Your task to perform on an android device: Open Google Chrome and open the bookmarks view Image 0: 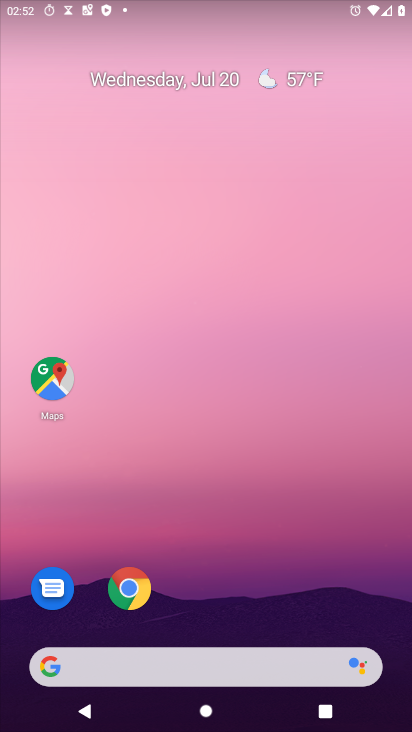
Step 0: drag from (266, 687) to (349, 213)
Your task to perform on an android device: Open Google Chrome and open the bookmarks view Image 1: 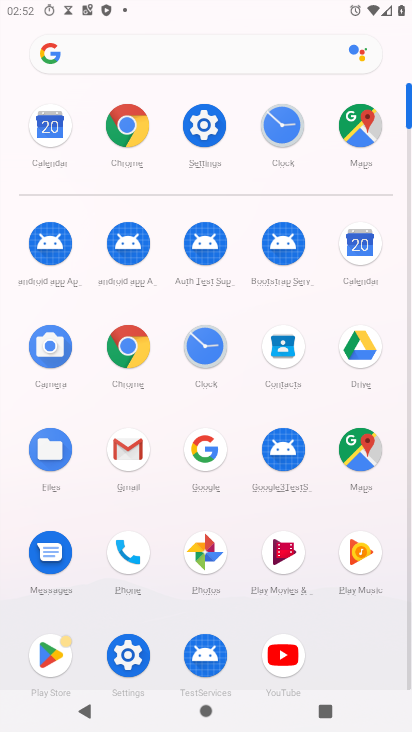
Step 1: click (123, 347)
Your task to perform on an android device: Open Google Chrome and open the bookmarks view Image 2: 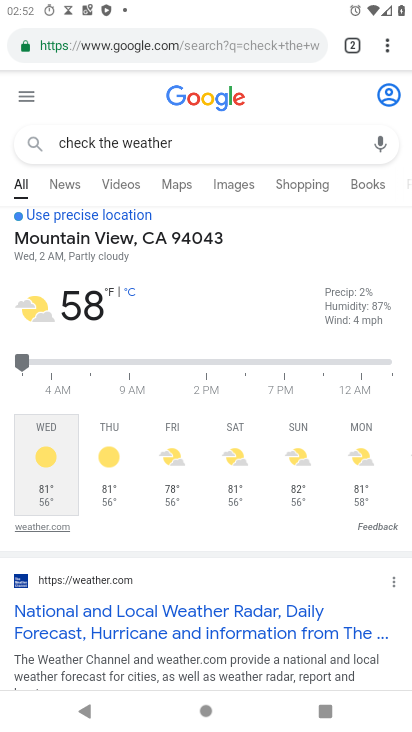
Step 2: task complete